Your task to perform on an android device: Go to Yahoo.com Image 0: 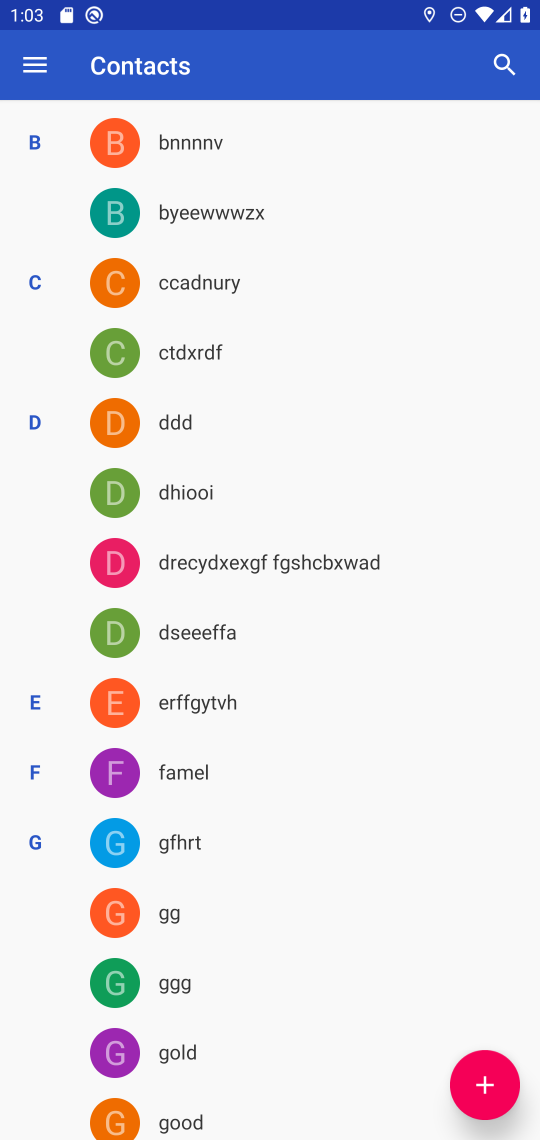
Step 0: press home button
Your task to perform on an android device: Go to Yahoo.com Image 1: 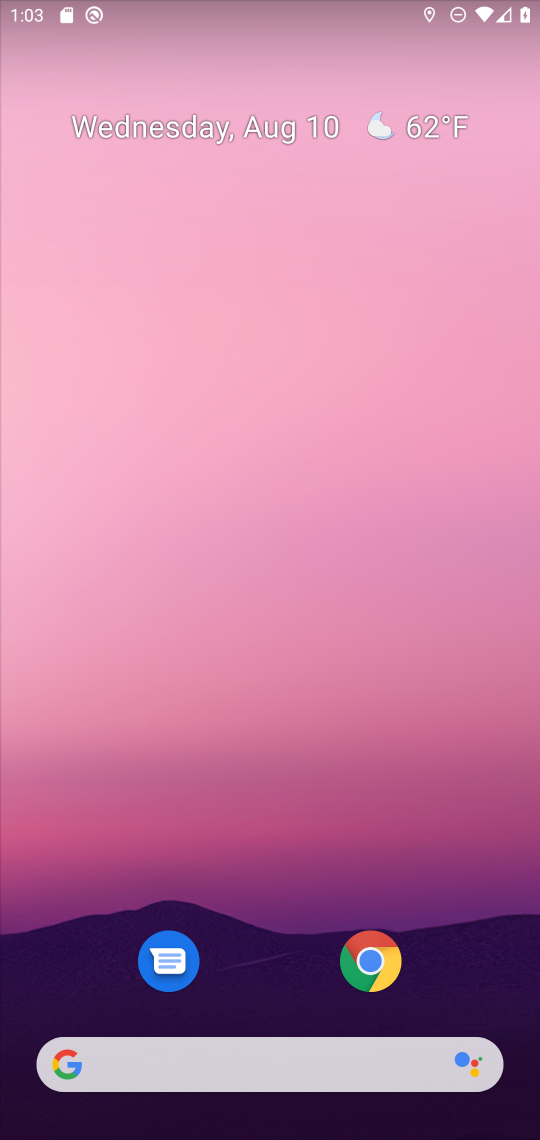
Step 1: click (370, 960)
Your task to perform on an android device: Go to Yahoo.com Image 2: 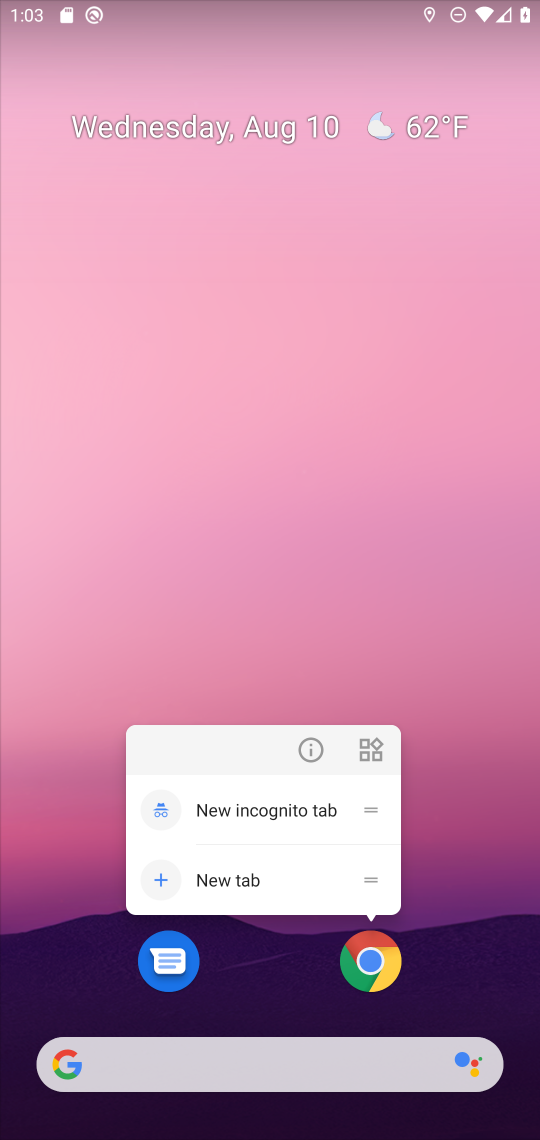
Step 2: click (370, 960)
Your task to perform on an android device: Go to Yahoo.com Image 3: 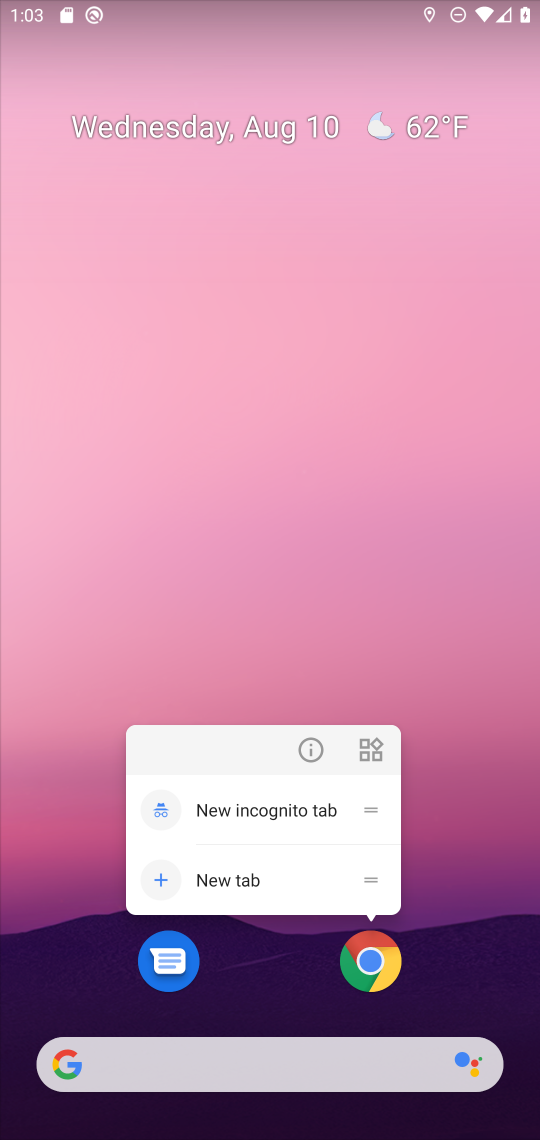
Step 3: click (374, 954)
Your task to perform on an android device: Go to Yahoo.com Image 4: 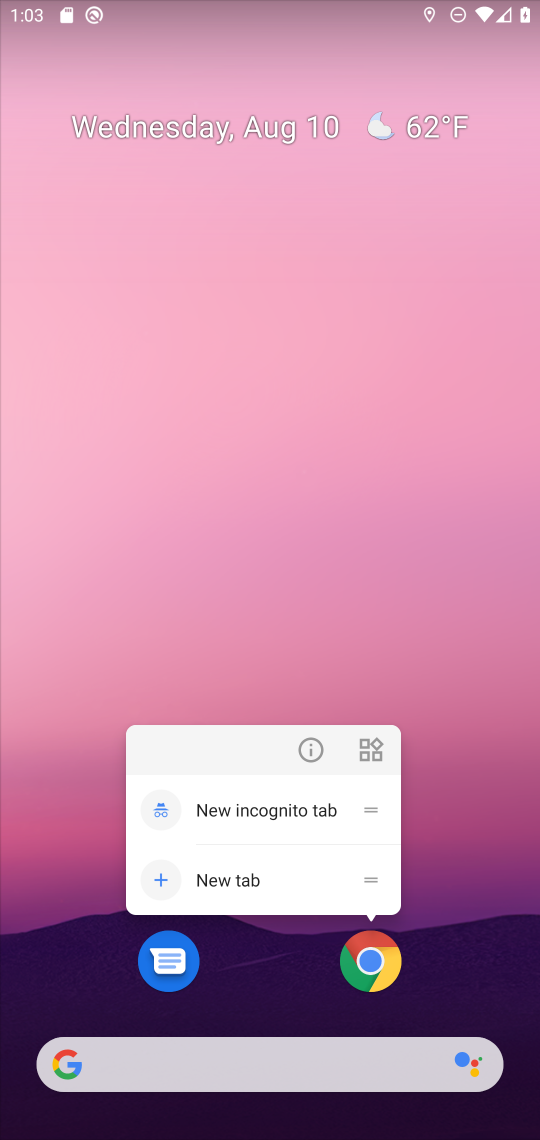
Step 4: click (364, 958)
Your task to perform on an android device: Go to Yahoo.com Image 5: 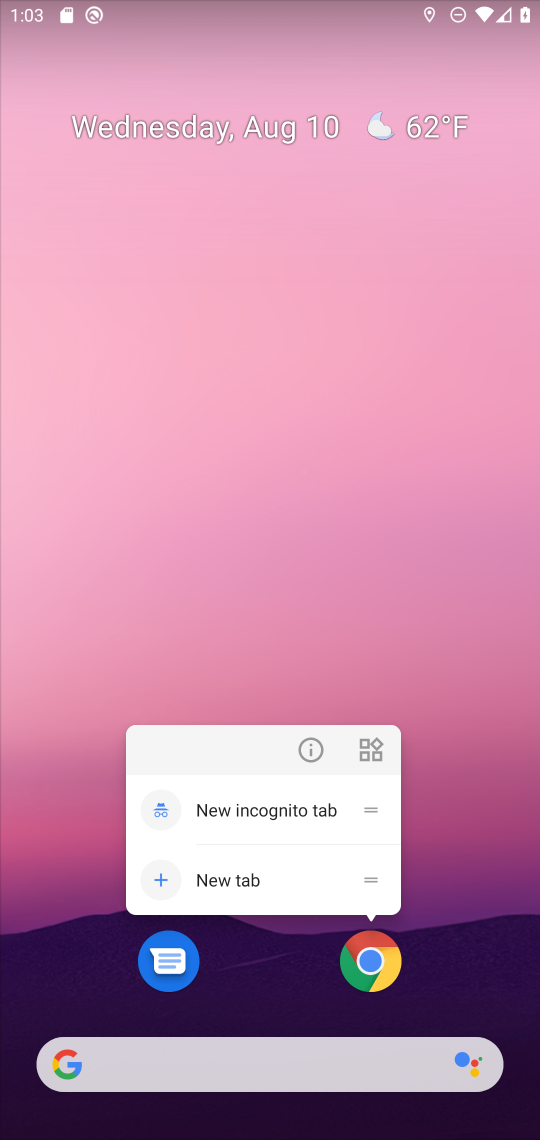
Step 5: click (370, 972)
Your task to perform on an android device: Go to Yahoo.com Image 6: 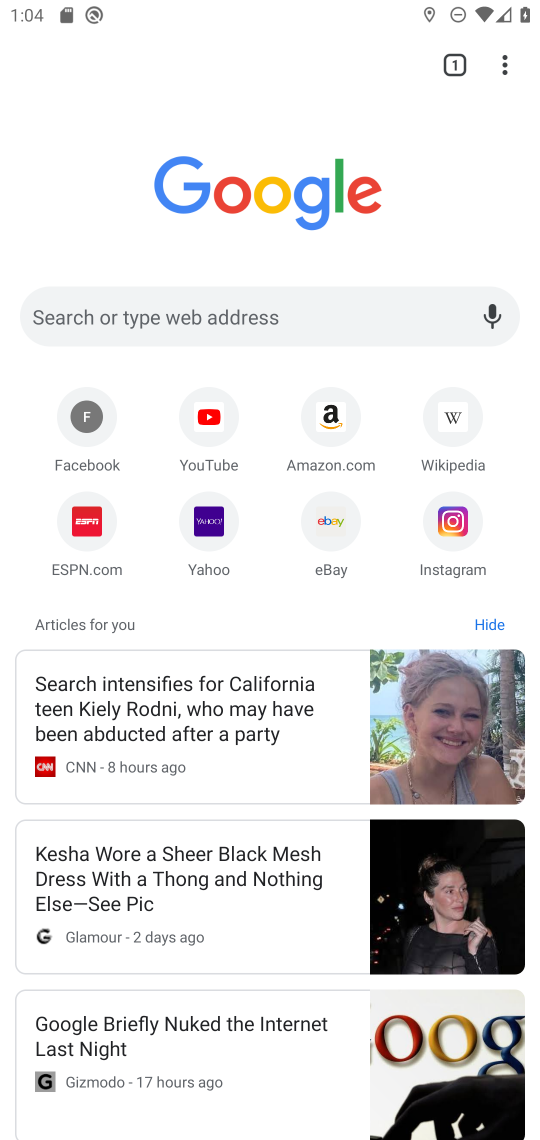
Step 6: click (206, 531)
Your task to perform on an android device: Go to Yahoo.com Image 7: 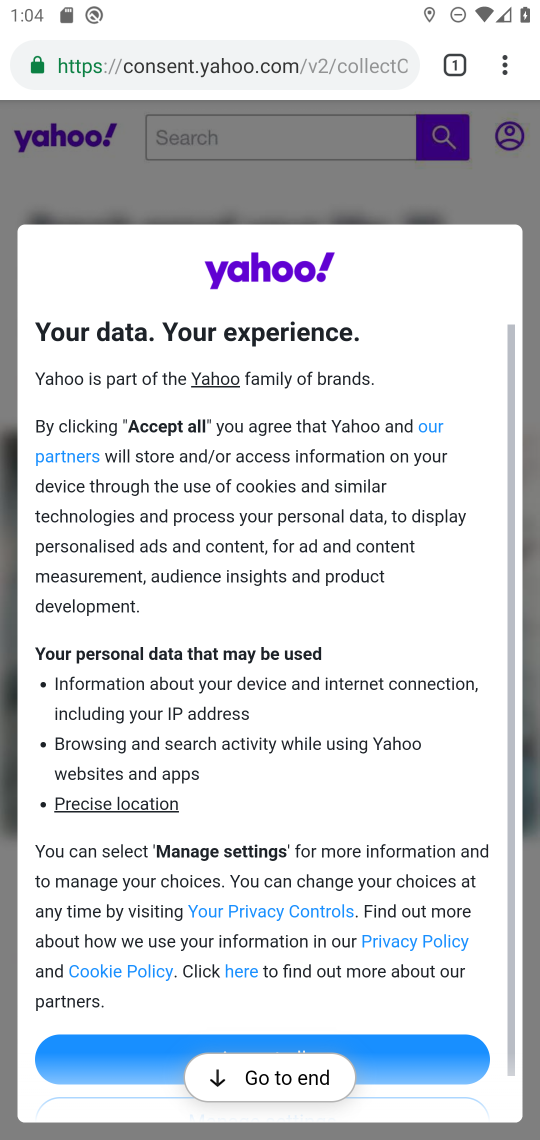
Step 7: click (296, 1074)
Your task to perform on an android device: Go to Yahoo.com Image 8: 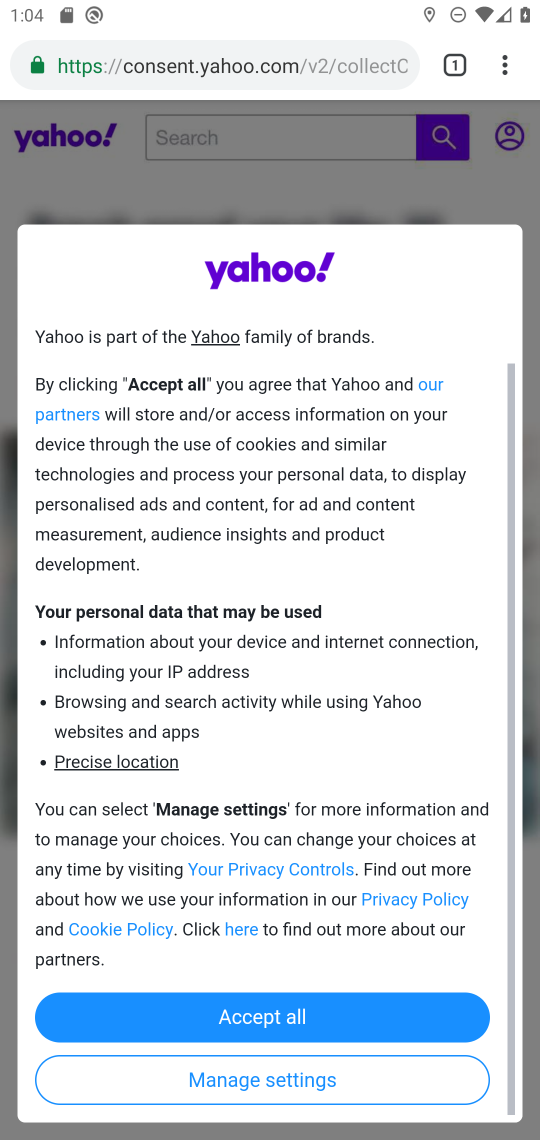
Step 8: click (294, 1008)
Your task to perform on an android device: Go to Yahoo.com Image 9: 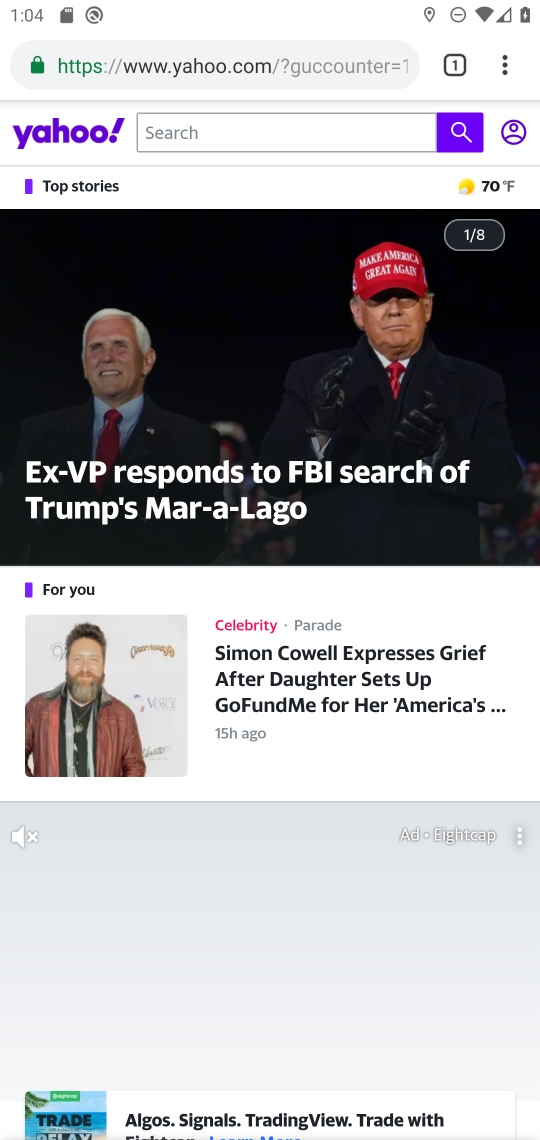
Step 9: task complete